Your task to perform on an android device: Open accessibility settings Image 0: 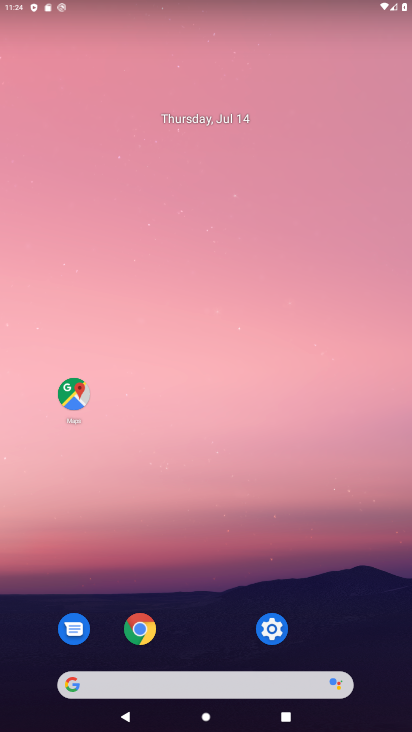
Step 0: press home button
Your task to perform on an android device: Open accessibility settings Image 1: 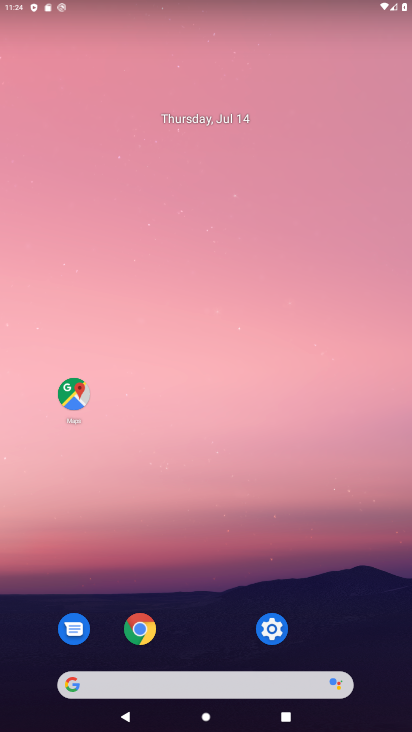
Step 1: click (270, 611)
Your task to perform on an android device: Open accessibility settings Image 2: 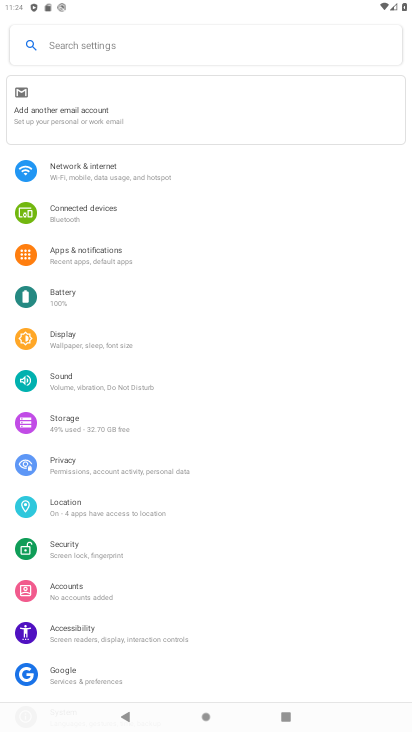
Step 2: click (93, 51)
Your task to perform on an android device: Open accessibility settings Image 3: 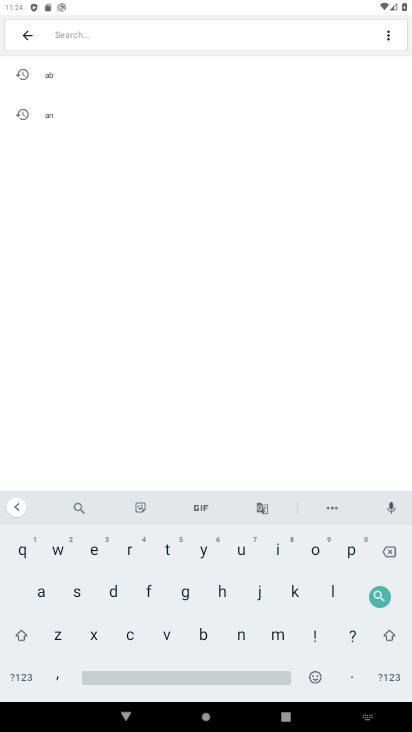
Step 3: click (41, 591)
Your task to perform on an android device: Open accessibility settings Image 4: 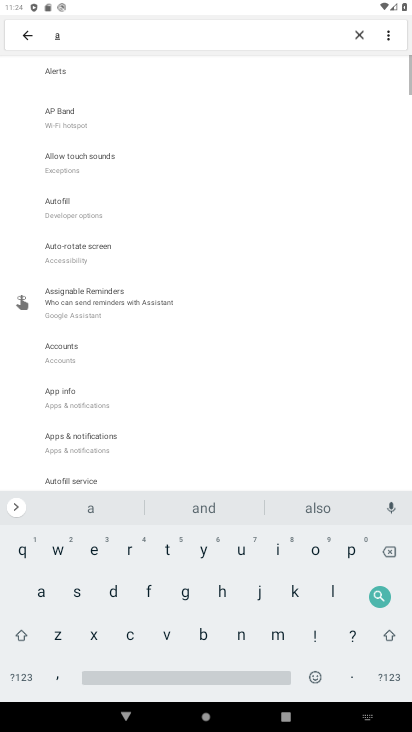
Step 4: click (125, 636)
Your task to perform on an android device: Open accessibility settings Image 5: 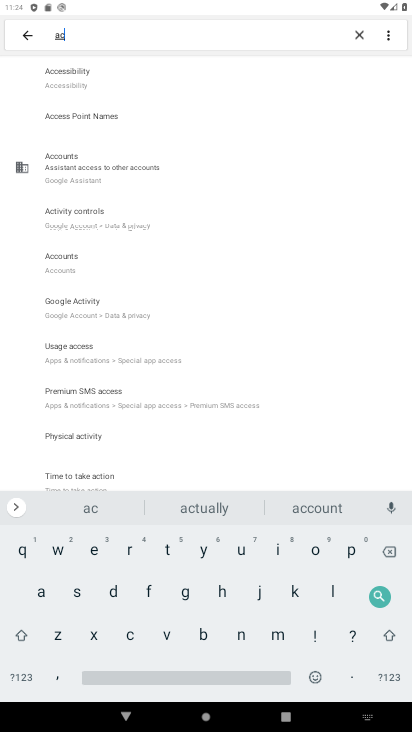
Step 5: click (88, 70)
Your task to perform on an android device: Open accessibility settings Image 6: 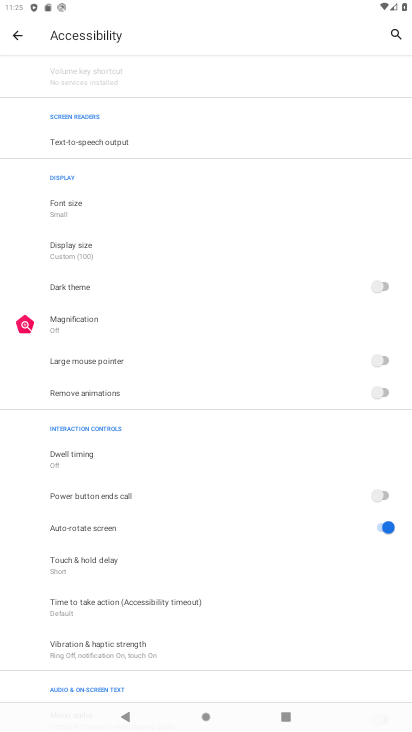
Step 6: task complete